Your task to perform on an android device: change notifications settings Image 0: 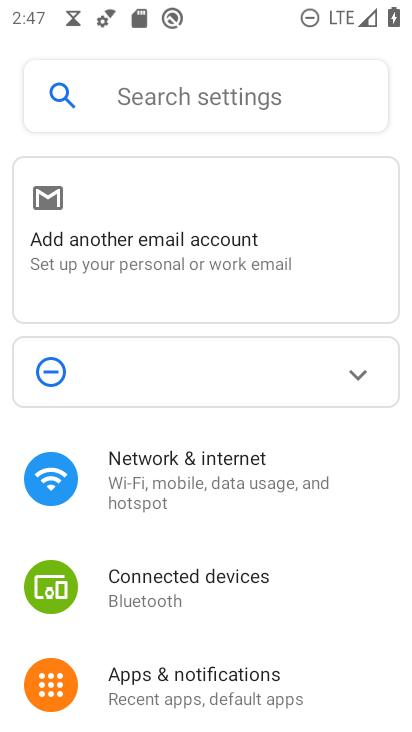
Step 0: press home button
Your task to perform on an android device: change notifications settings Image 1: 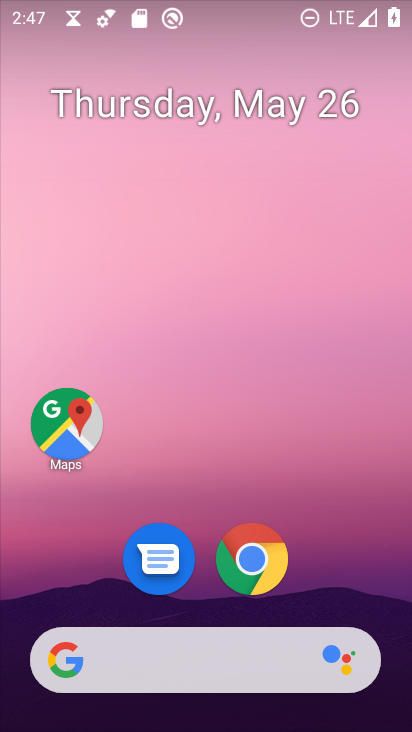
Step 1: drag from (261, 673) to (407, 135)
Your task to perform on an android device: change notifications settings Image 2: 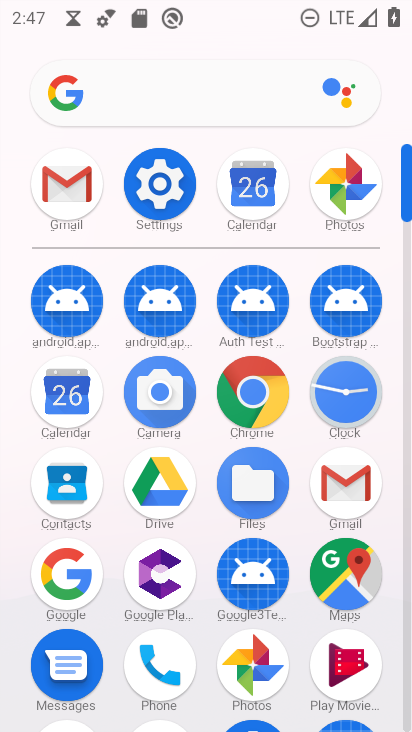
Step 2: click (174, 196)
Your task to perform on an android device: change notifications settings Image 3: 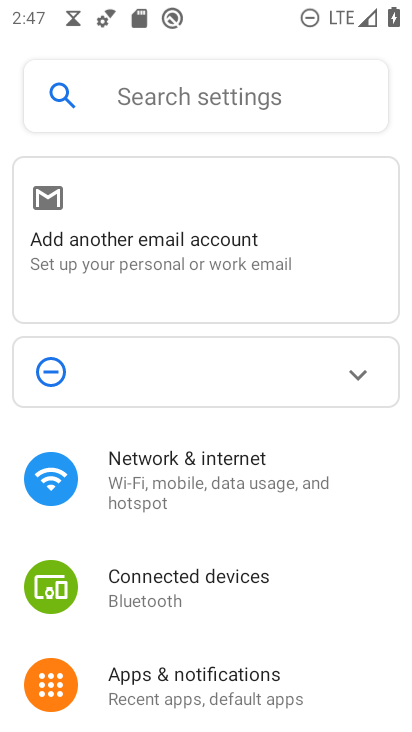
Step 3: click (215, 675)
Your task to perform on an android device: change notifications settings Image 4: 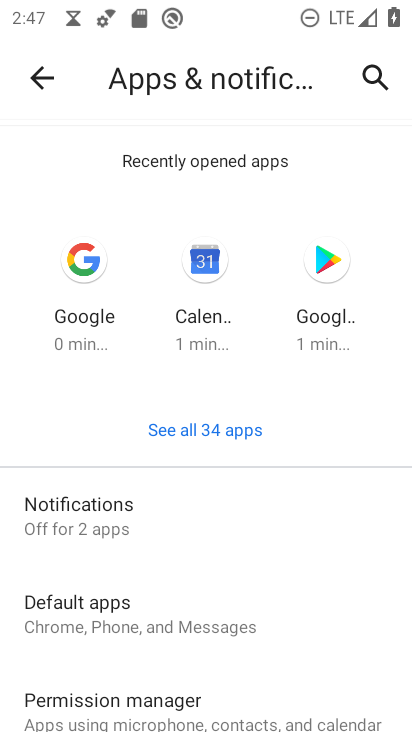
Step 4: click (108, 520)
Your task to perform on an android device: change notifications settings Image 5: 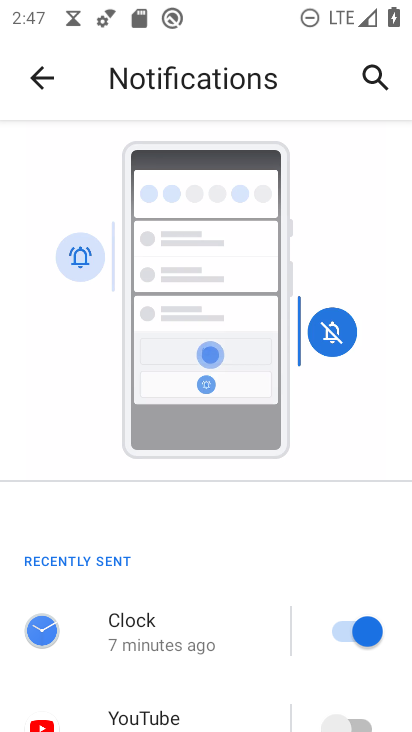
Step 5: drag from (191, 633) to (292, 242)
Your task to perform on an android device: change notifications settings Image 6: 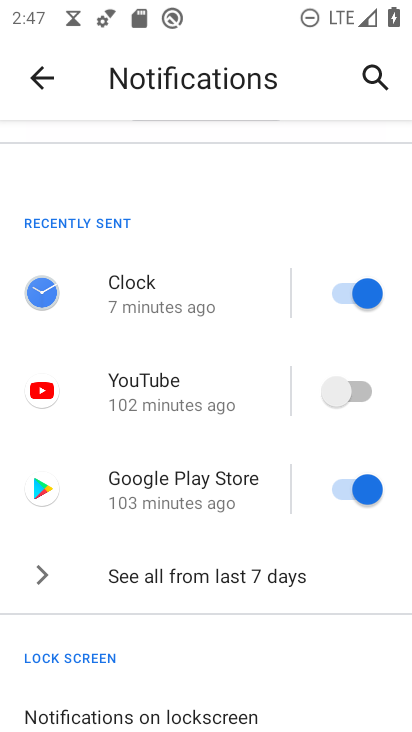
Step 6: click (358, 391)
Your task to perform on an android device: change notifications settings Image 7: 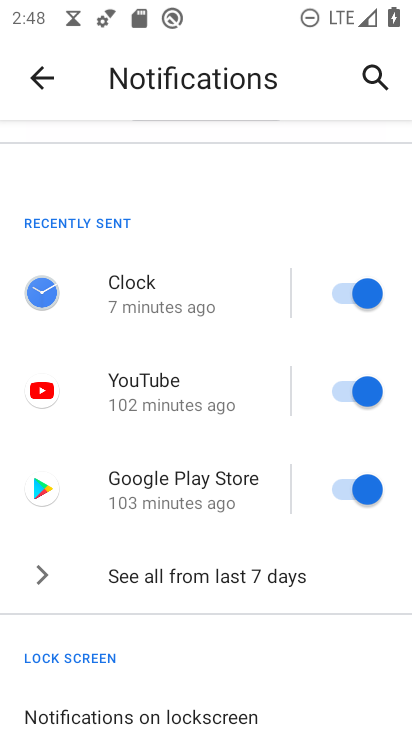
Step 7: task complete